Your task to perform on an android device: Go to Yahoo.com Image 0: 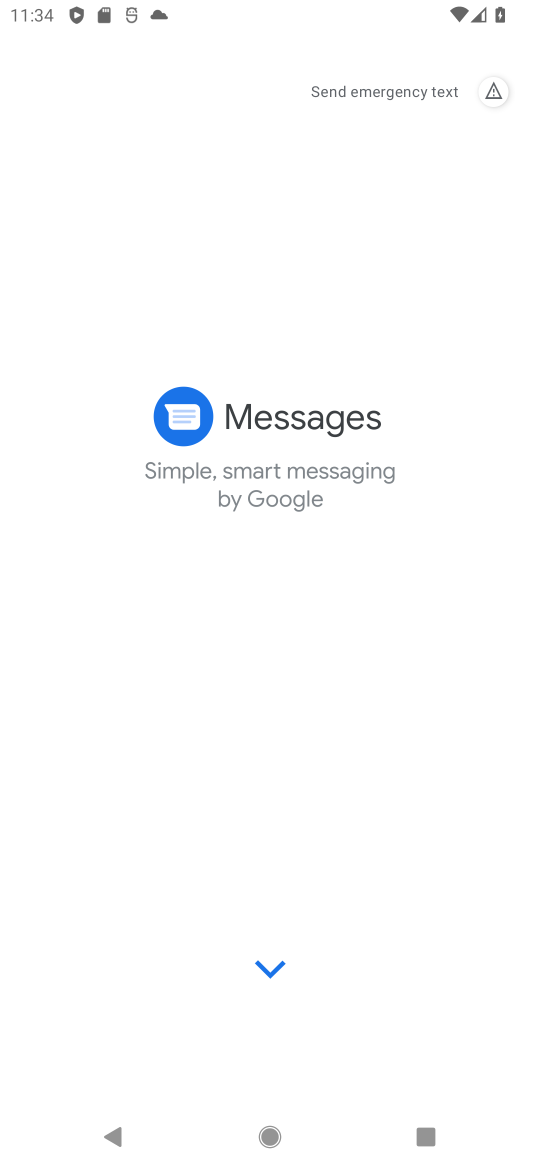
Step 0: press home button
Your task to perform on an android device: Go to Yahoo.com Image 1: 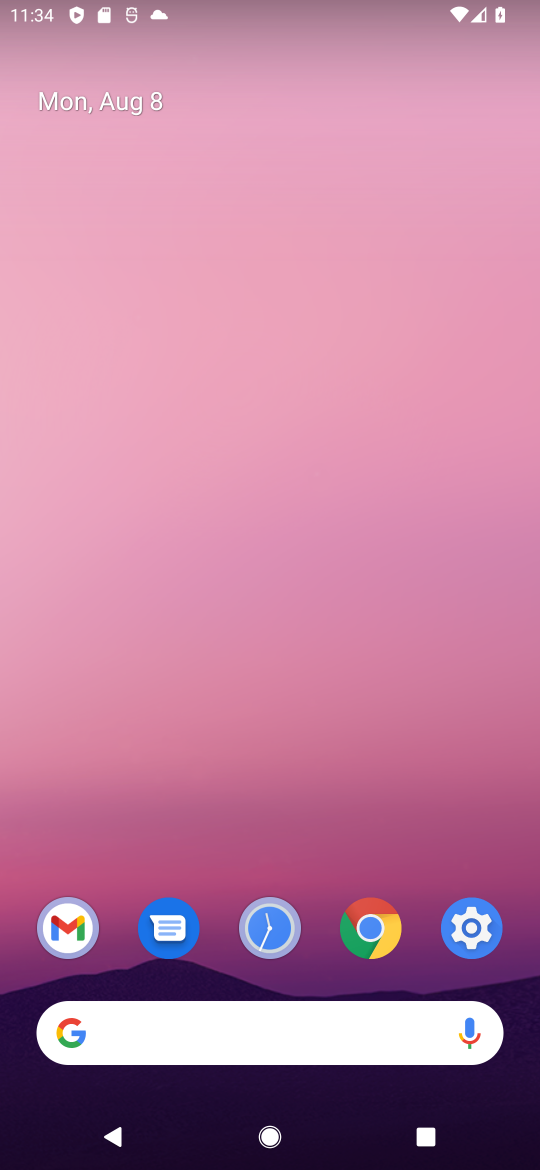
Step 1: click (367, 949)
Your task to perform on an android device: Go to Yahoo.com Image 2: 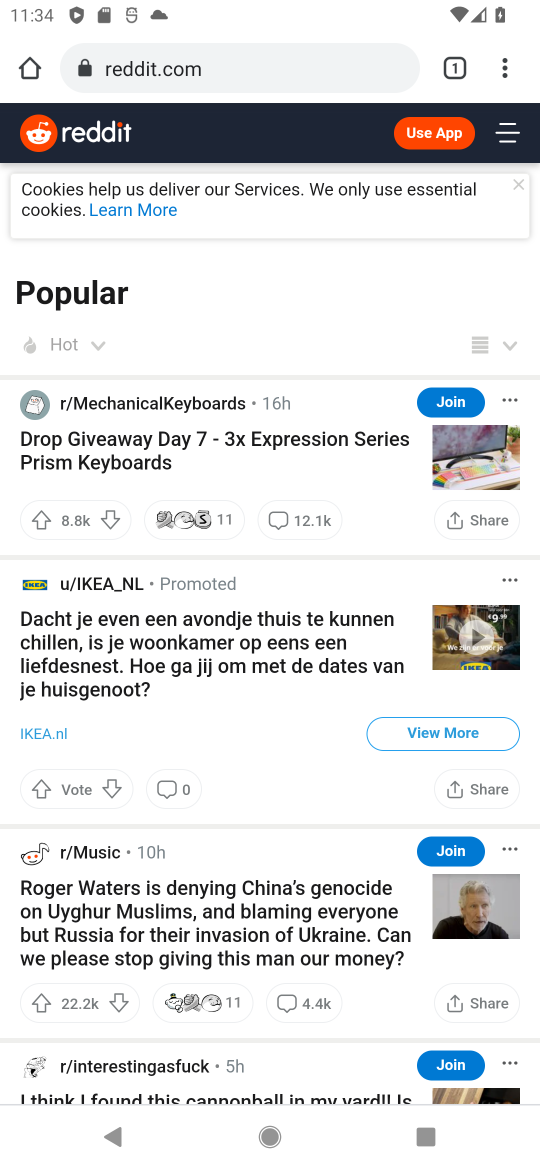
Step 2: click (448, 77)
Your task to perform on an android device: Go to Yahoo.com Image 3: 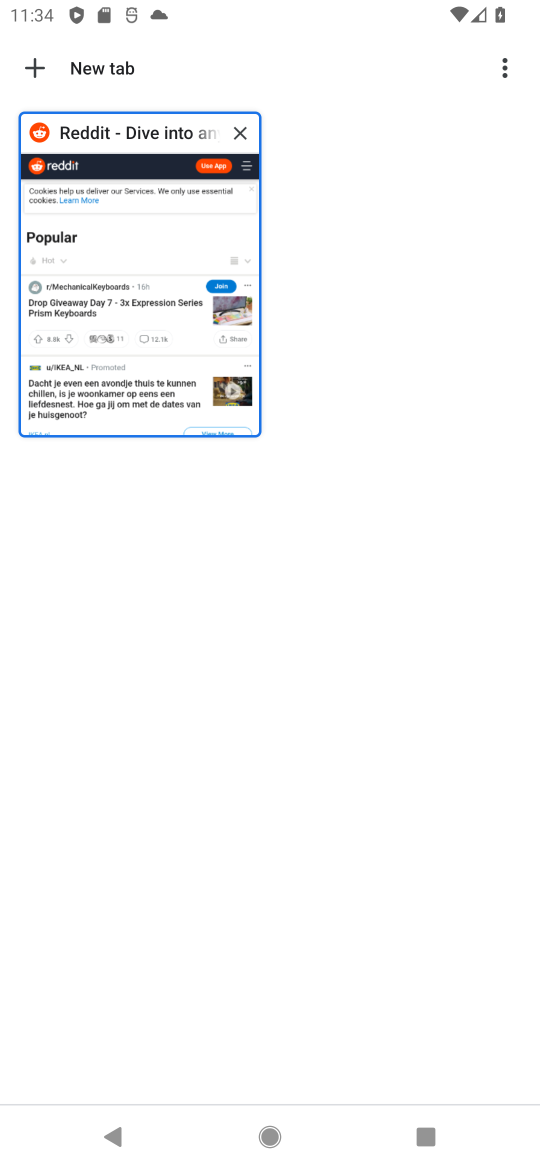
Step 3: click (44, 51)
Your task to perform on an android device: Go to Yahoo.com Image 4: 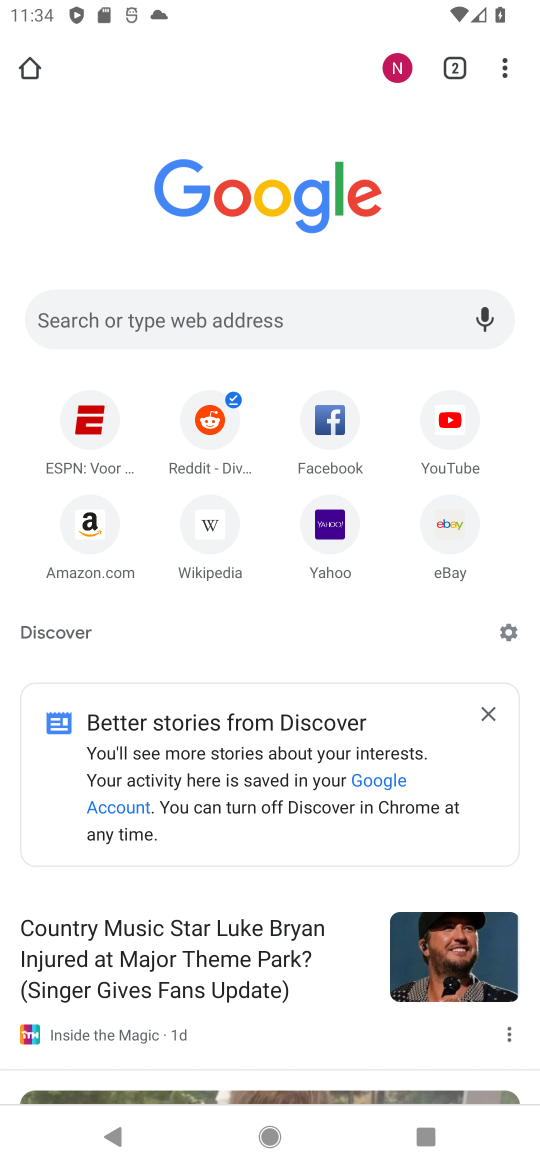
Step 4: click (341, 531)
Your task to perform on an android device: Go to Yahoo.com Image 5: 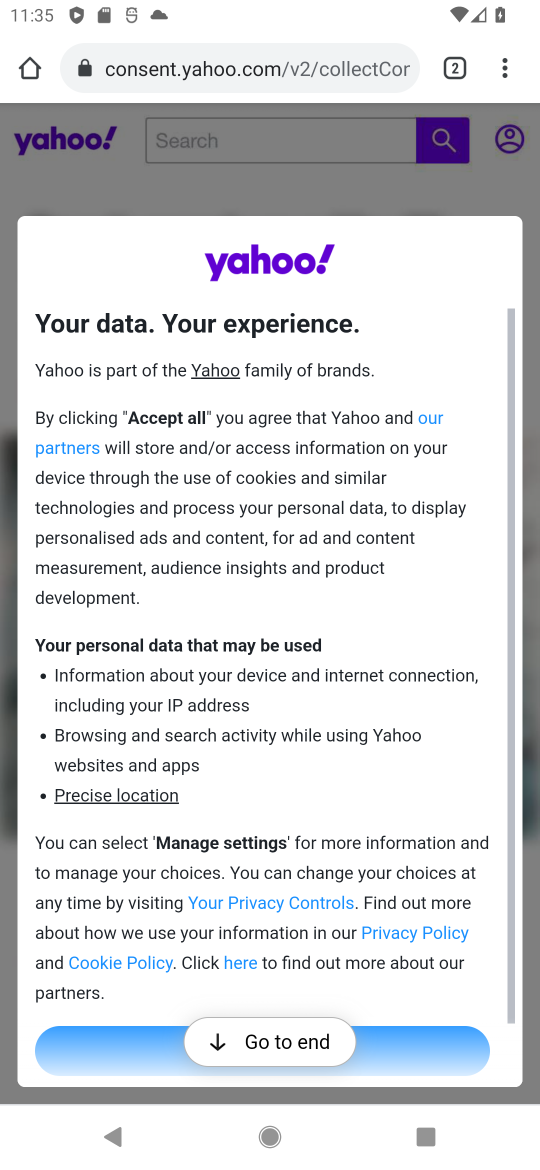
Step 5: drag from (331, 654) to (341, 360)
Your task to perform on an android device: Go to Yahoo.com Image 6: 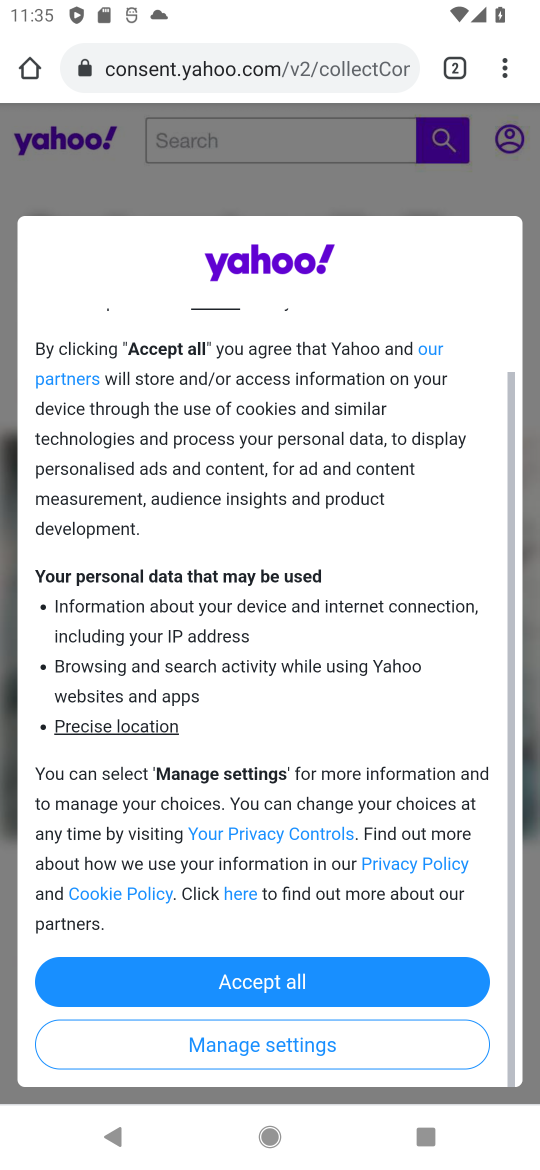
Step 6: click (262, 977)
Your task to perform on an android device: Go to Yahoo.com Image 7: 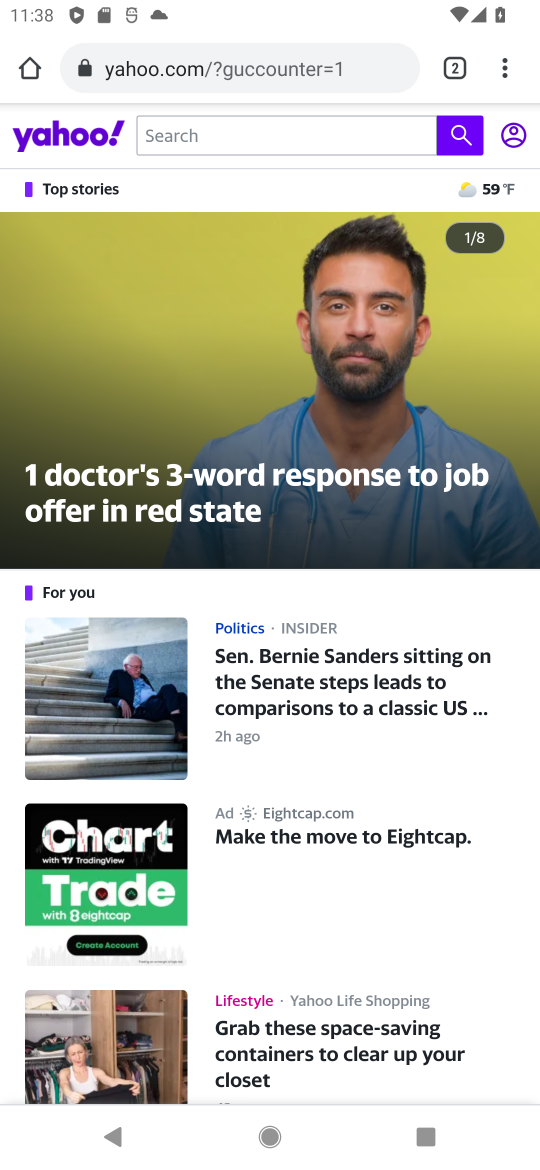
Step 7: task complete